Your task to perform on an android device: See recent photos Image 0: 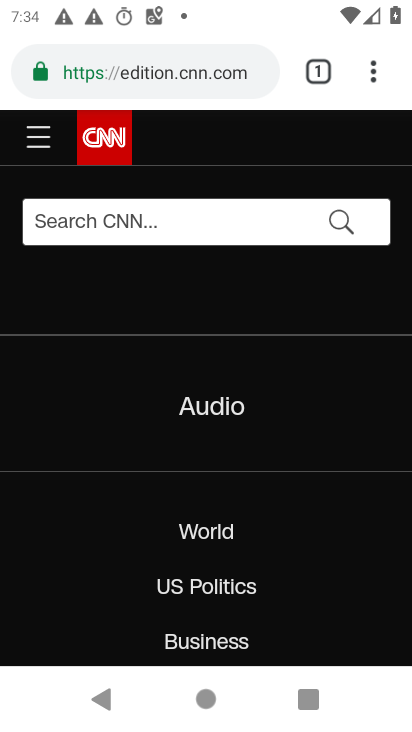
Step 0: press home button
Your task to perform on an android device: See recent photos Image 1: 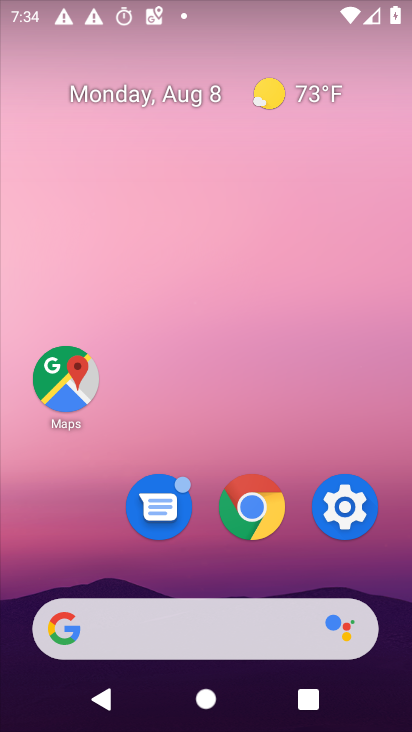
Step 1: drag from (256, 604) to (127, 235)
Your task to perform on an android device: See recent photos Image 2: 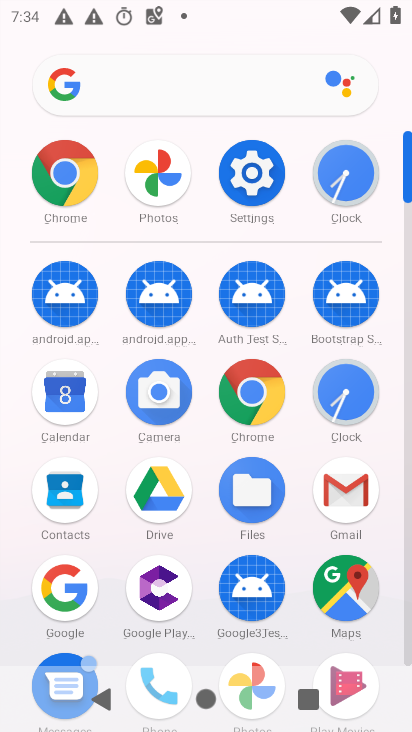
Step 2: drag from (208, 546) to (187, 437)
Your task to perform on an android device: See recent photos Image 3: 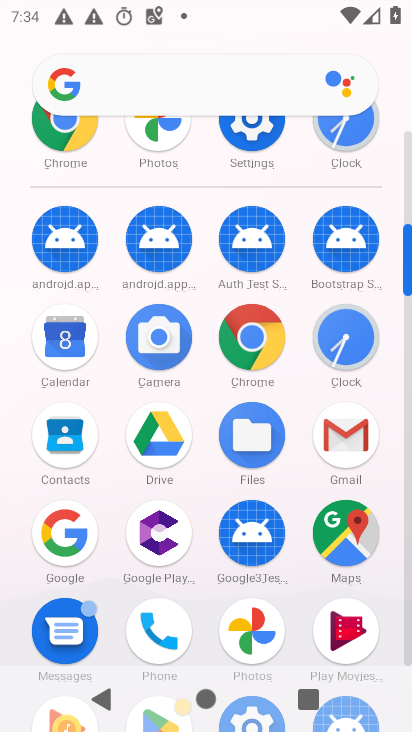
Step 3: click (241, 623)
Your task to perform on an android device: See recent photos Image 4: 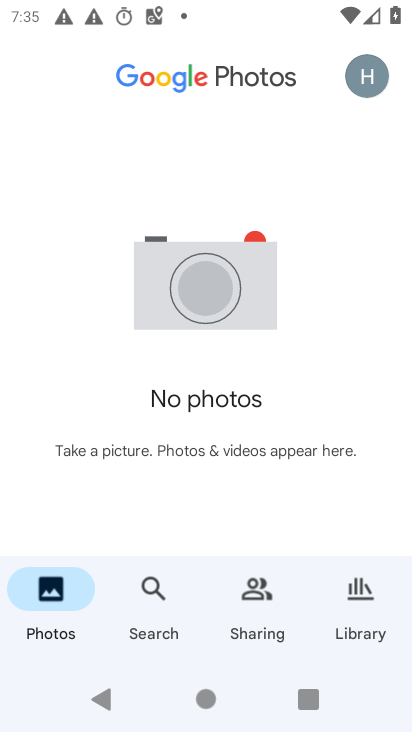
Step 4: task complete